Your task to perform on an android device: Search for seafood restaurants on Google Maps Image 0: 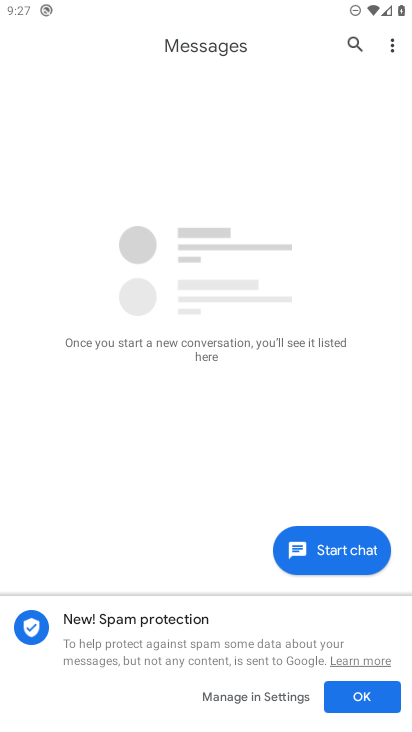
Step 0: press home button
Your task to perform on an android device: Search for seafood restaurants on Google Maps Image 1: 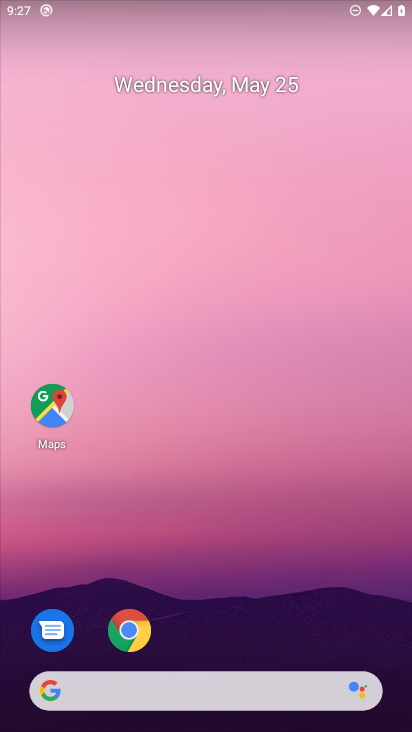
Step 1: drag from (190, 668) to (208, 417)
Your task to perform on an android device: Search for seafood restaurants on Google Maps Image 2: 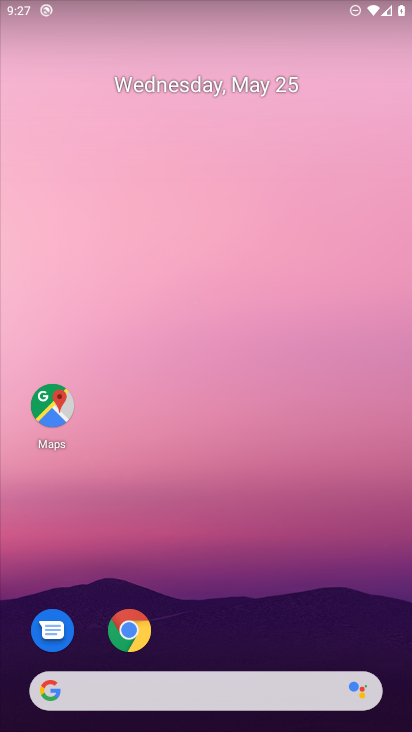
Step 2: drag from (229, 665) to (232, 436)
Your task to perform on an android device: Search for seafood restaurants on Google Maps Image 3: 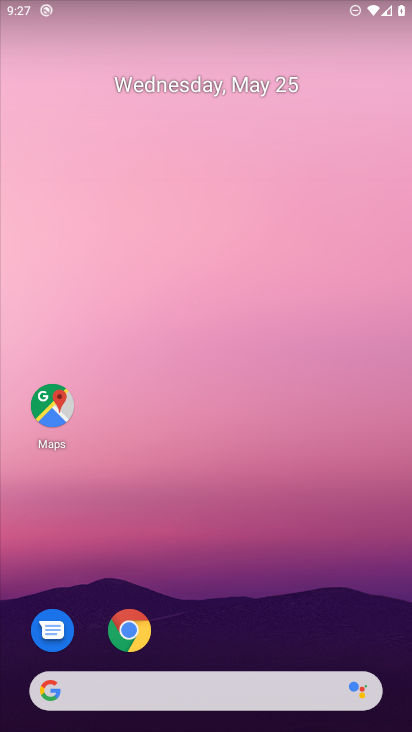
Step 3: click (53, 420)
Your task to perform on an android device: Search for seafood restaurants on Google Maps Image 4: 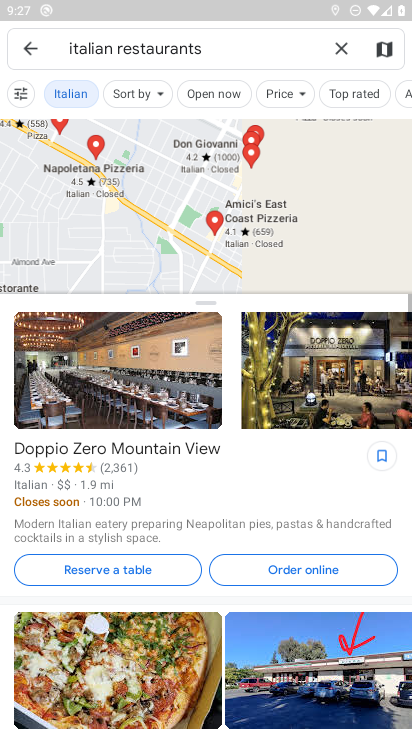
Step 4: click (333, 51)
Your task to perform on an android device: Search for seafood restaurants on Google Maps Image 5: 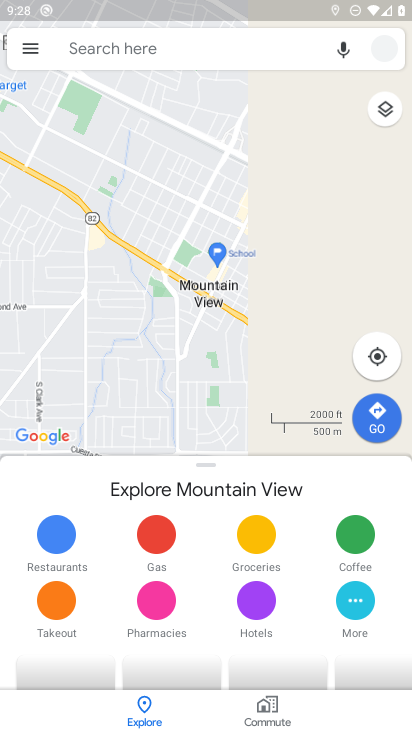
Step 5: click (230, 47)
Your task to perform on an android device: Search for seafood restaurants on Google Maps Image 6: 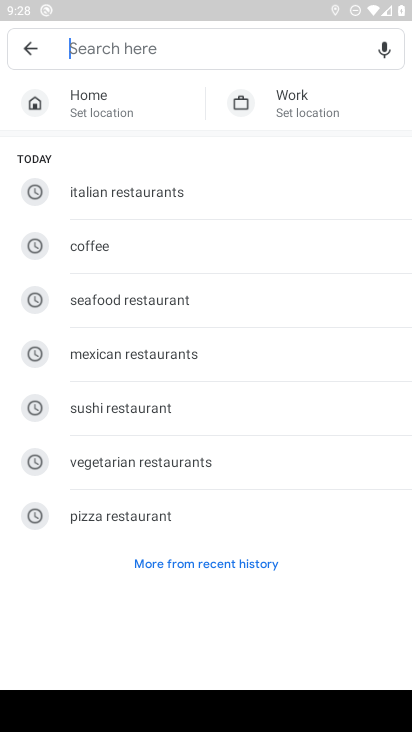
Step 6: click (94, 51)
Your task to perform on an android device: Search for seafood restaurants on Google Maps Image 7: 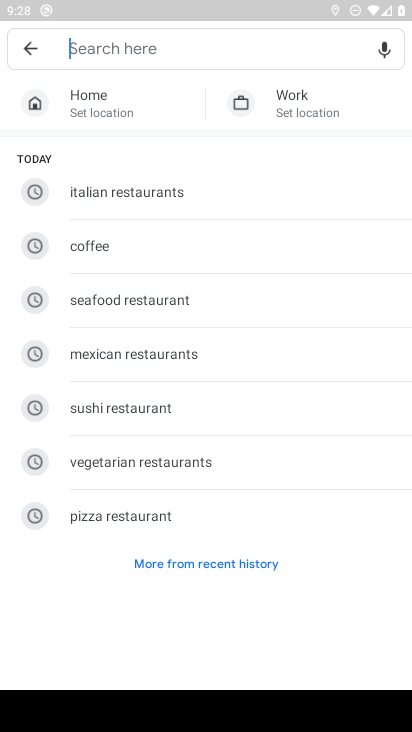
Step 7: click (79, 49)
Your task to perform on an android device: Search for seafood restaurants on Google Maps Image 8: 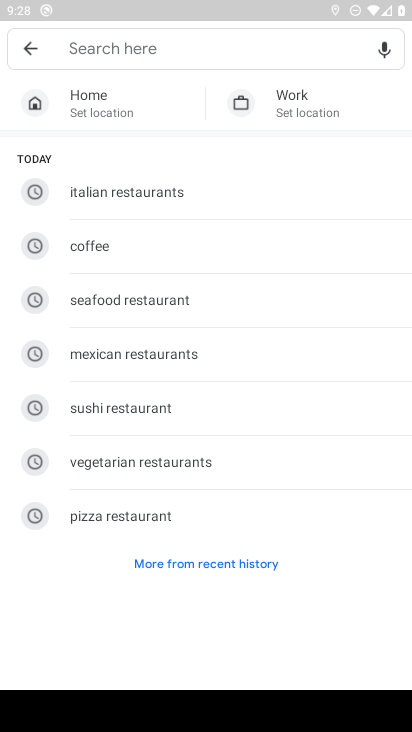
Step 8: click (95, 294)
Your task to perform on an android device: Search for seafood restaurants on Google Maps Image 9: 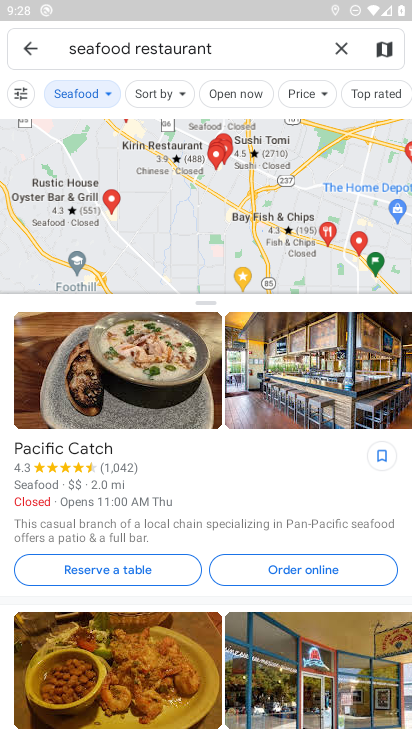
Step 9: task complete